Your task to perform on an android device: open a new tab in the chrome app Image 0: 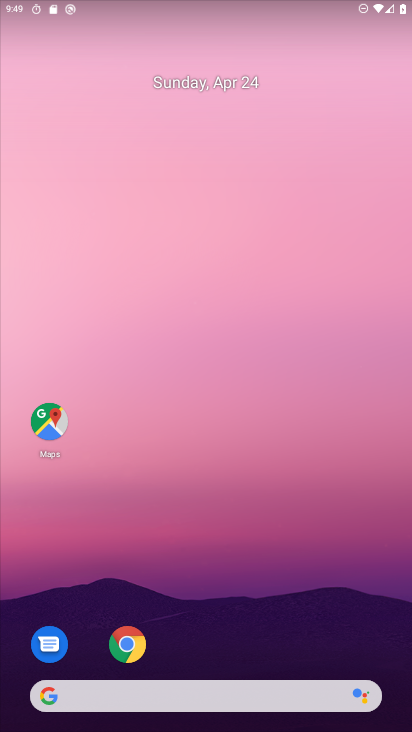
Step 0: click (132, 641)
Your task to perform on an android device: open a new tab in the chrome app Image 1: 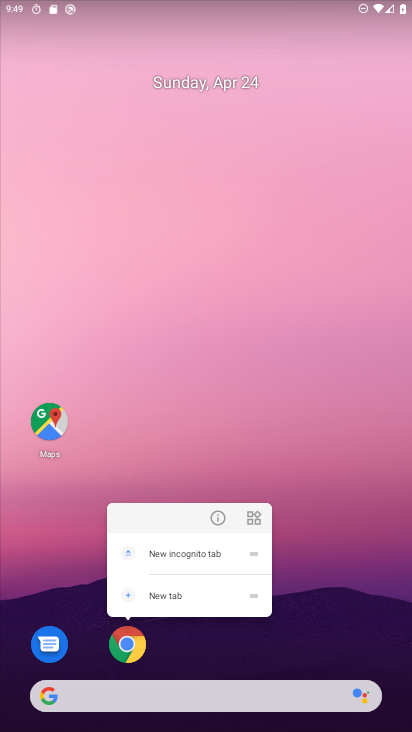
Step 1: click (138, 647)
Your task to perform on an android device: open a new tab in the chrome app Image 2: 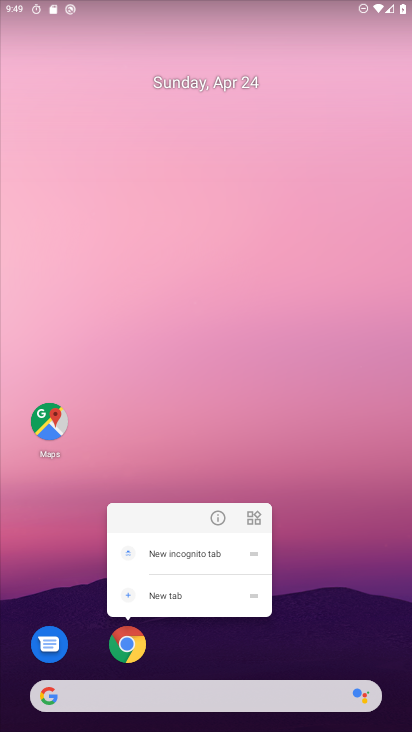
Step 2: click (135, 643)
Your task to perform on an android device: open a new tab in the chrome app Image 3: 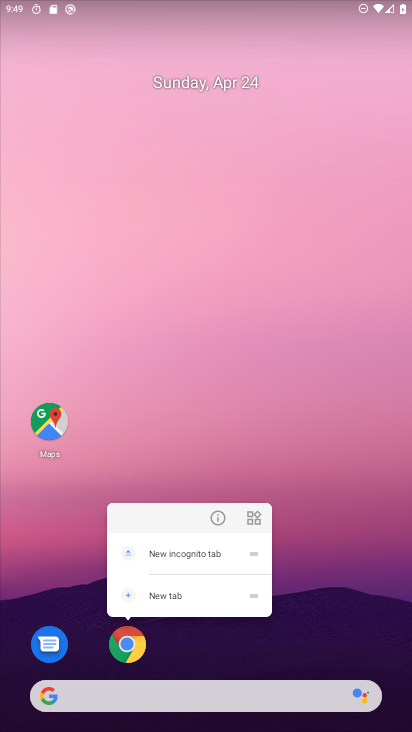
Step 3: click (139, 630)
Your task to perform on an android device: open a new tab in the chrome app Image 4: 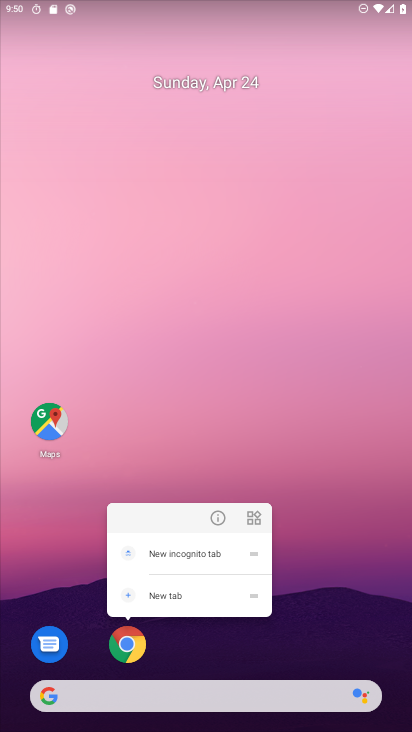
Step 4: click (119, 647)
Your task to perform on an android device: open a new tab in the chrome app Image 5: 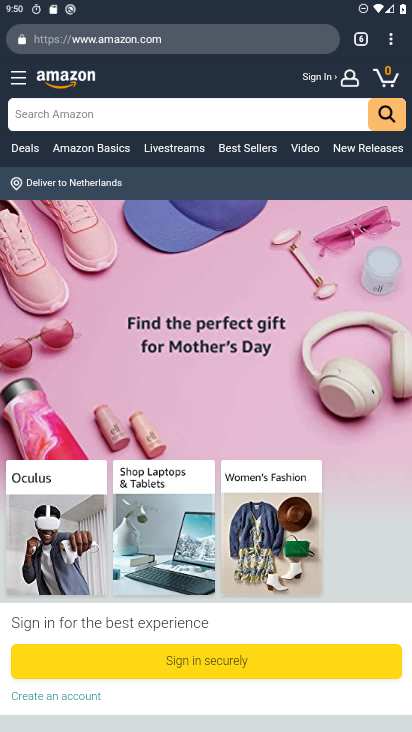
Step 5: click (356, 33)
Your task to perform on an android device: open a new tab in the chrome app Image 6: 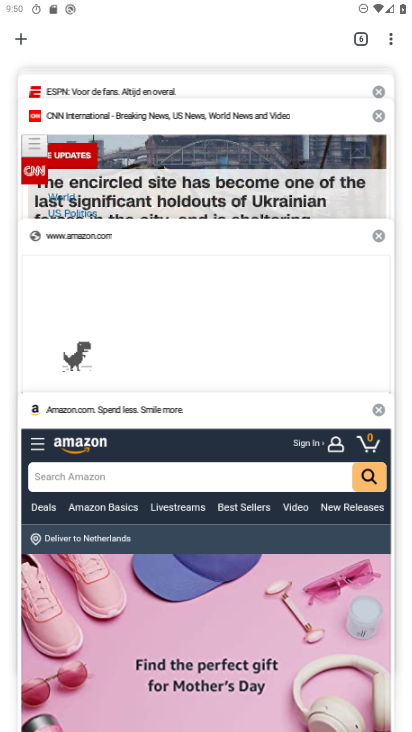
Step 6: click (14, 39)
Your task to perform on an android device: open a new tab in the chrome app Image 7: 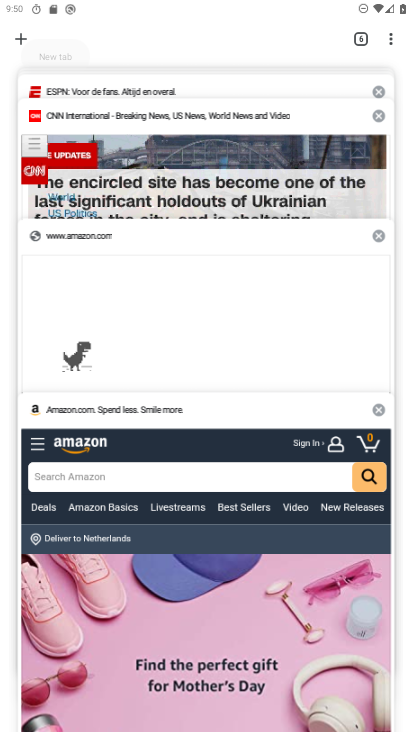
Step 7: click (15, 40)
Your task to perform on an android device: open a new tab in the chrome app Image 8: 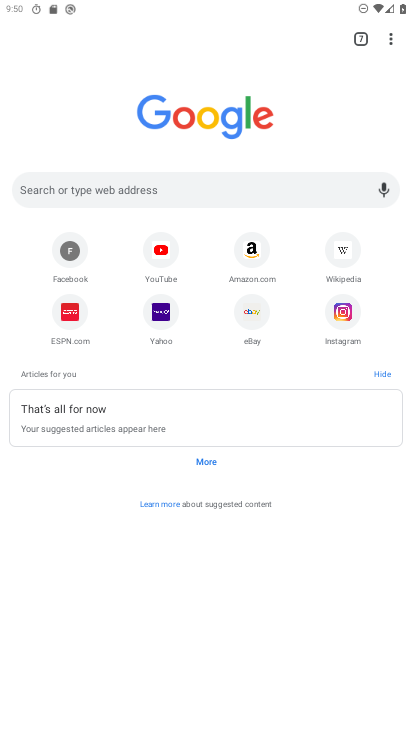
Step 8: task complete